Your task to perform on an android device: see sites visited before in the chrome app Image 0: 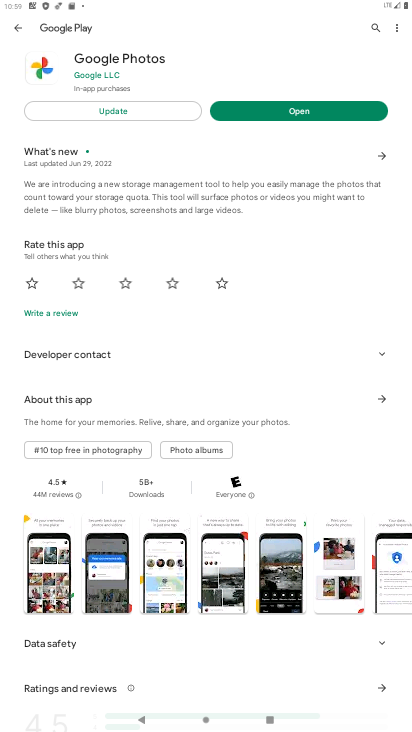
Step 0: press home button
Your task to perform on an android device: see sites visited before in the chrome app Image 1: 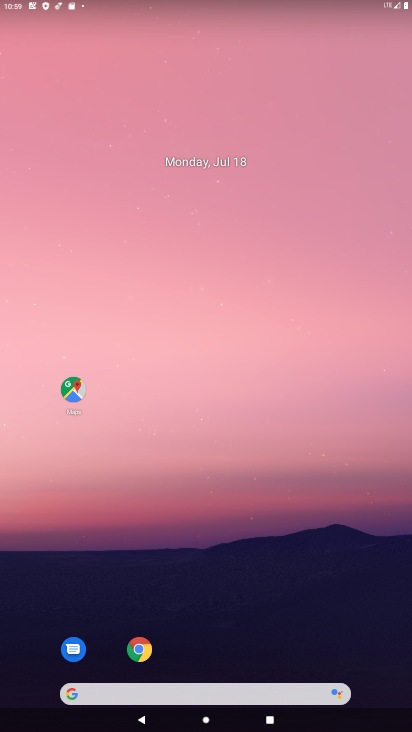
Step 1: click (139, 646)
Your task to perform on an android device: see sites visited before in the chrome app Image 2: 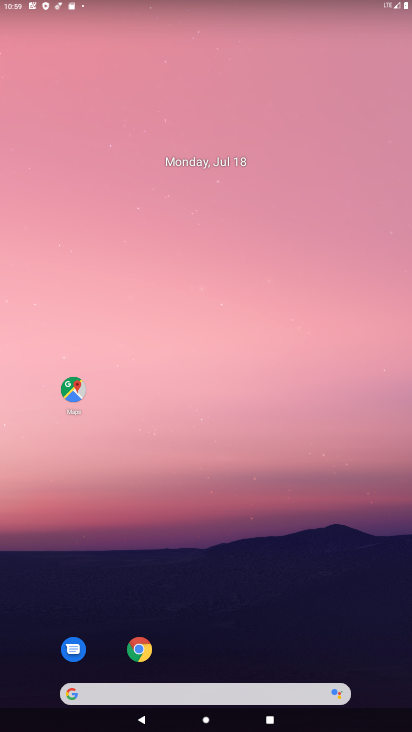
Step 2: click (139, 646)
Your task to perform on an android device: see sites visited before in the chrome app Image 3: 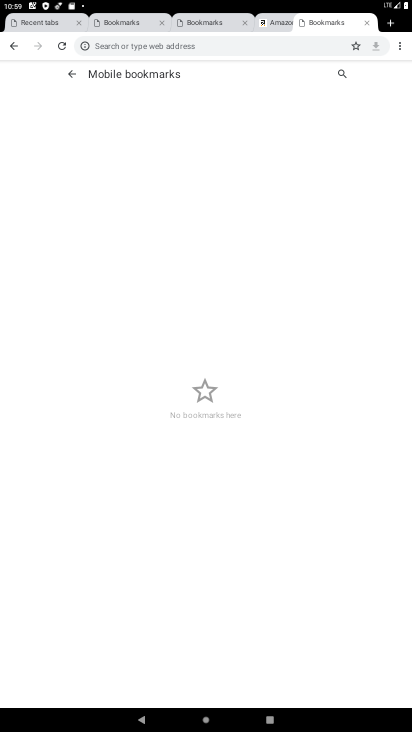
Step 3: click (400, 43)
Your task to perform on an android device: see sites visited before in the chrome app Image 4: 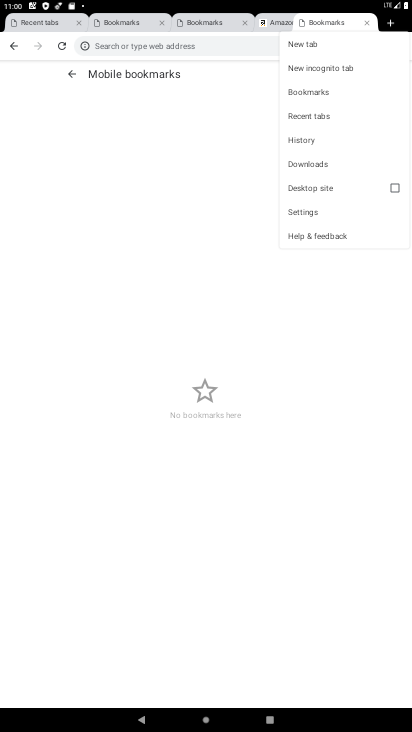
Step 4: click (338, 117)
Your task to perform on an android device: see sites visited before in the chrome app Image 5: 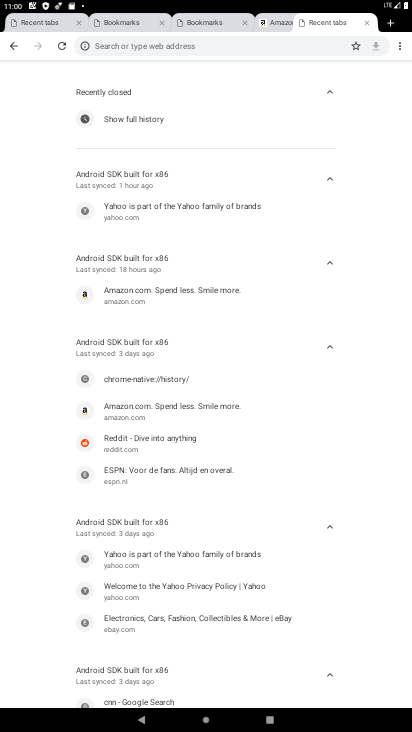
Step 5: task complete